Your task to perform on an android device: turn on notifications settings in the gmail app Image 0: 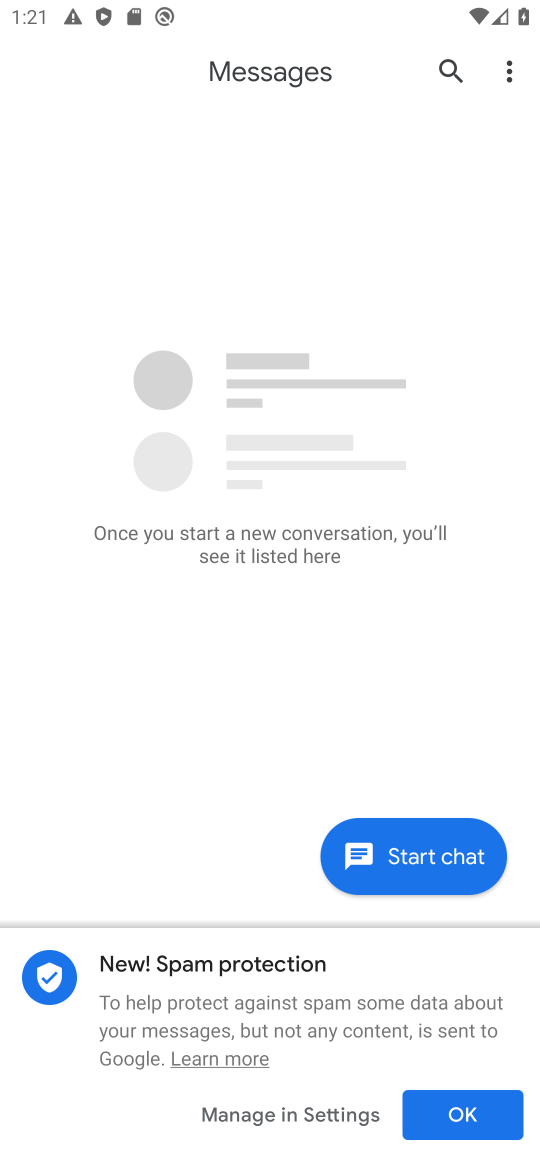
Step 0: press home button
Your task to perform on an android device: turn on notifications settings in the gmail app Image 1: 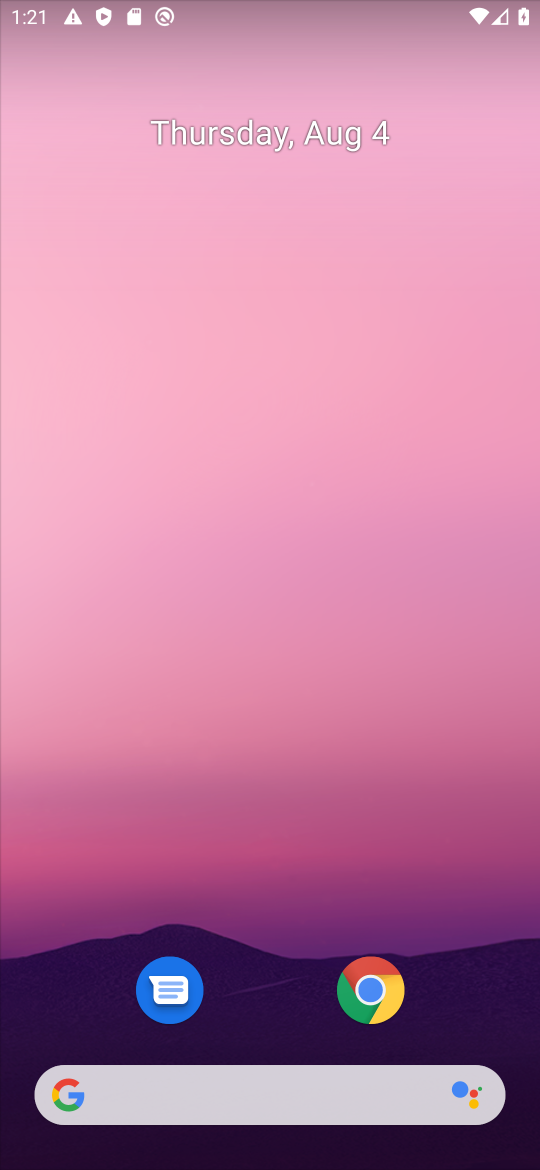
Step 1: drag from (293, 1035) to (267, 161)
Your task to perform on an android device: turn on notifications settings in the gmail app Image 2: 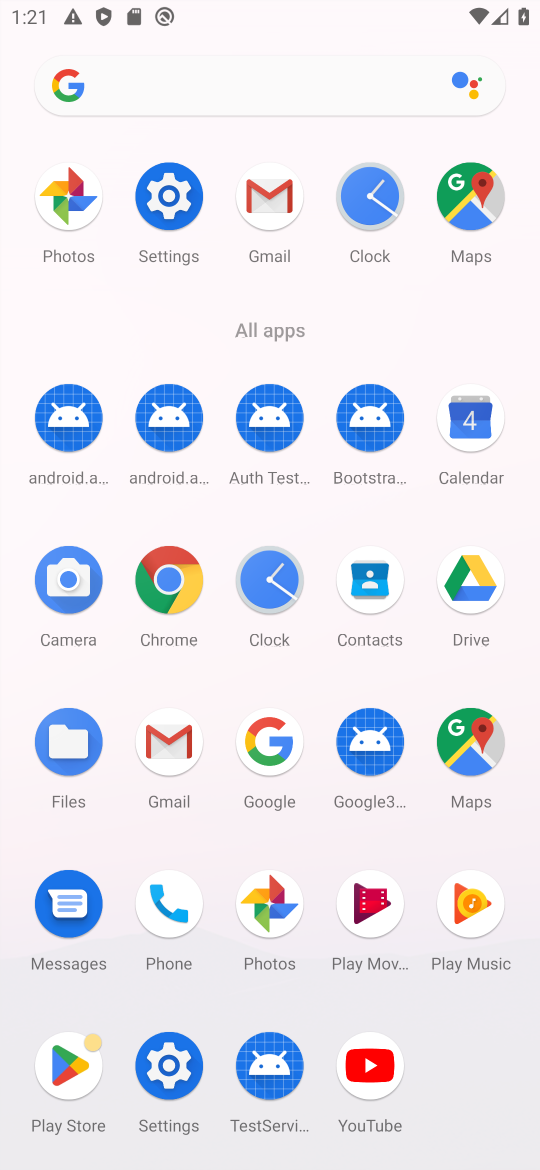
Step 2: click (184, 773)
Your task to perform on an android device: turn on notifications settings in the gmail app Image 3: 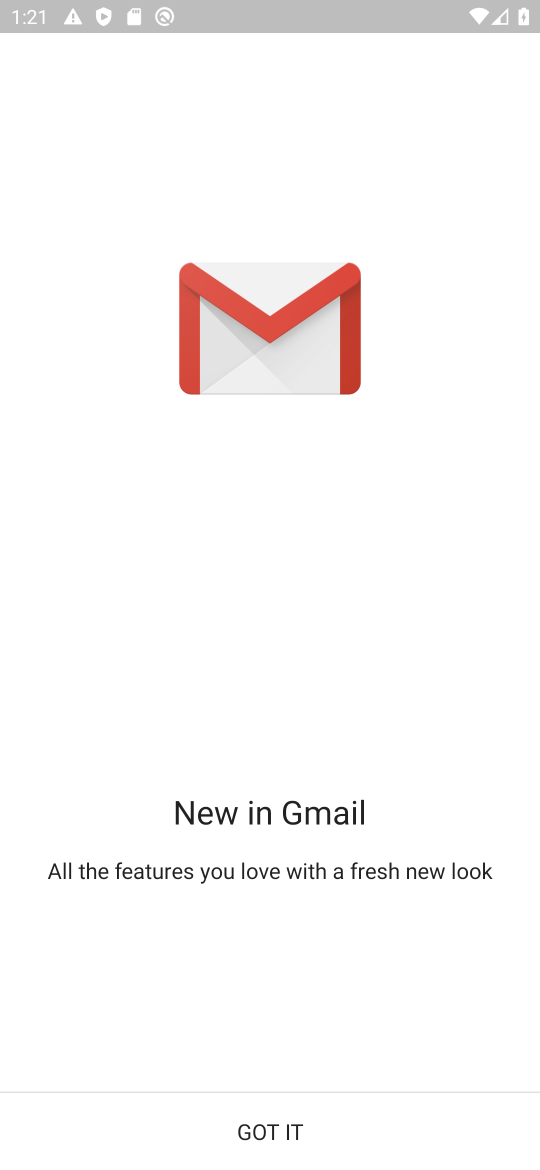
Step 3: click (303, 1113)
Your task to perform on an android device: turn on notifications settings in the gmail app Image 4: 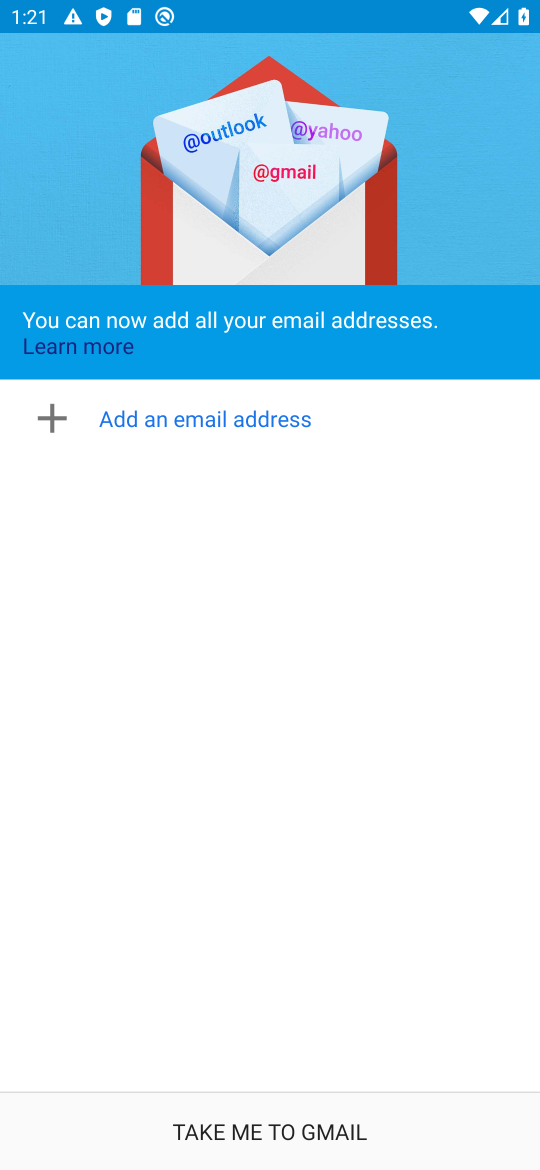
Step 4: task complete